Your task to perform on an android device: Empty the shopping cart on target.com. Search for "logitech g pro" on target.com, select the first entry, add it to the cart, then select checkout. Image 0: 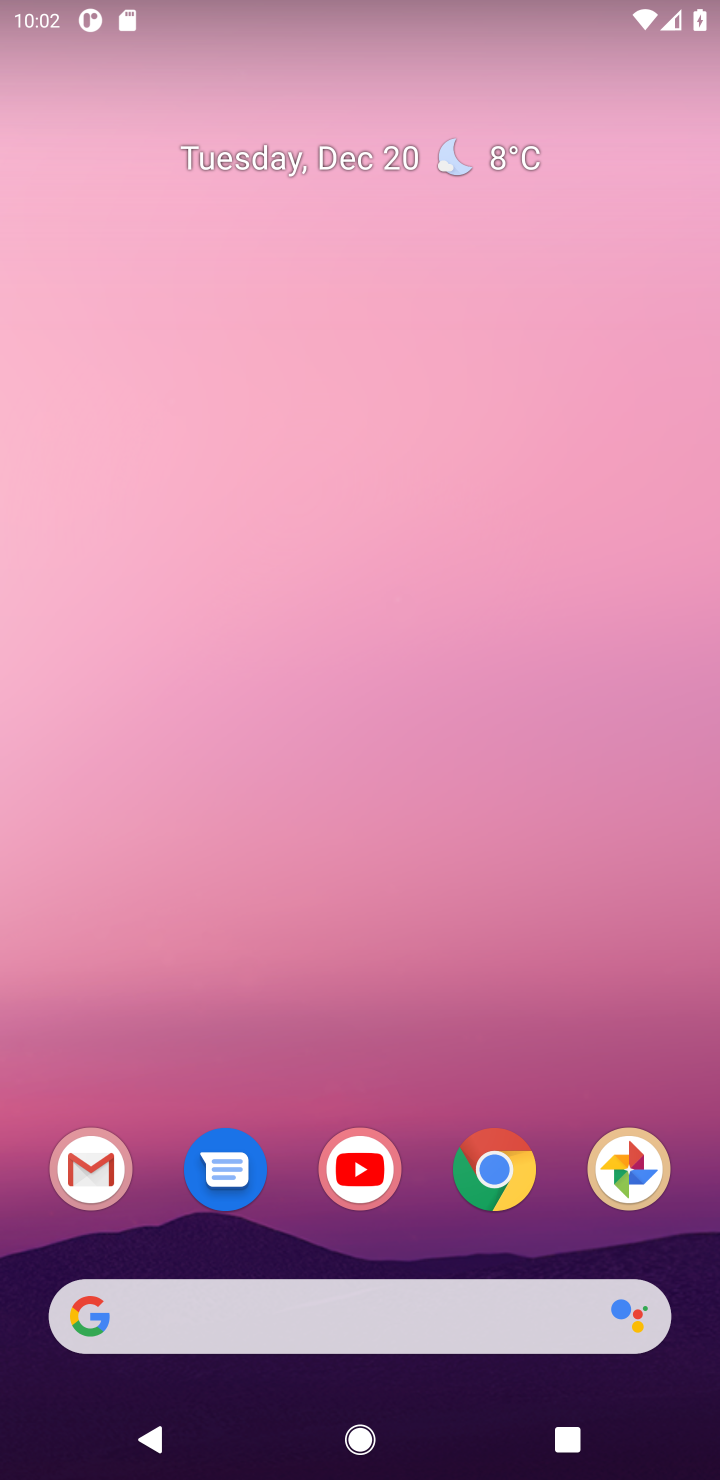
Step 0: click (431, 1339)
Your task to perform on an android device: Empty the shopping cart on target.com. Search for "logitech g pro" on target.com, select the first entry, add it to the cart, then select checkout. Image 1: 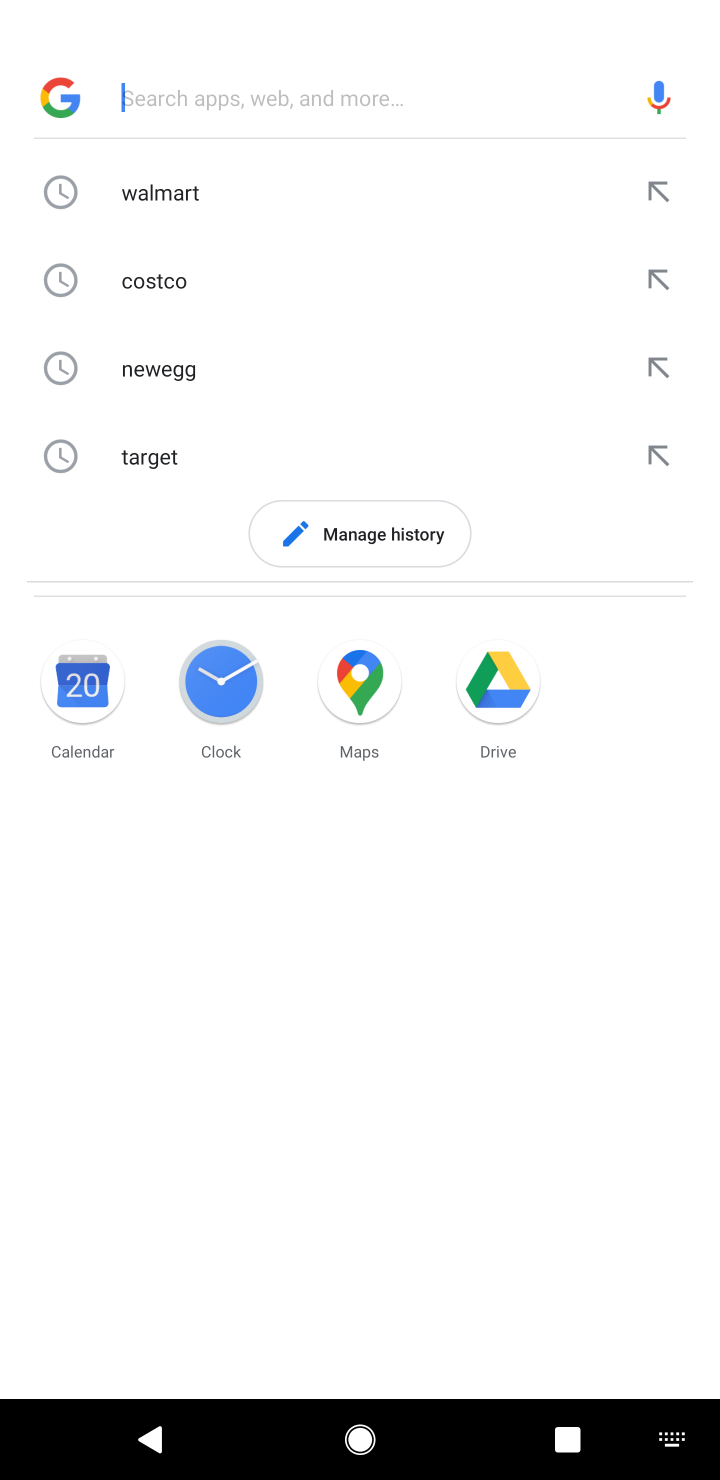
Step 1: click (212, 445)
Your task to perform on an android device: Empty the shopping cart on target.com. Search for "logitech g pro" on target.com, select the first entry, add it to the cart, then select checkout. Image 2: 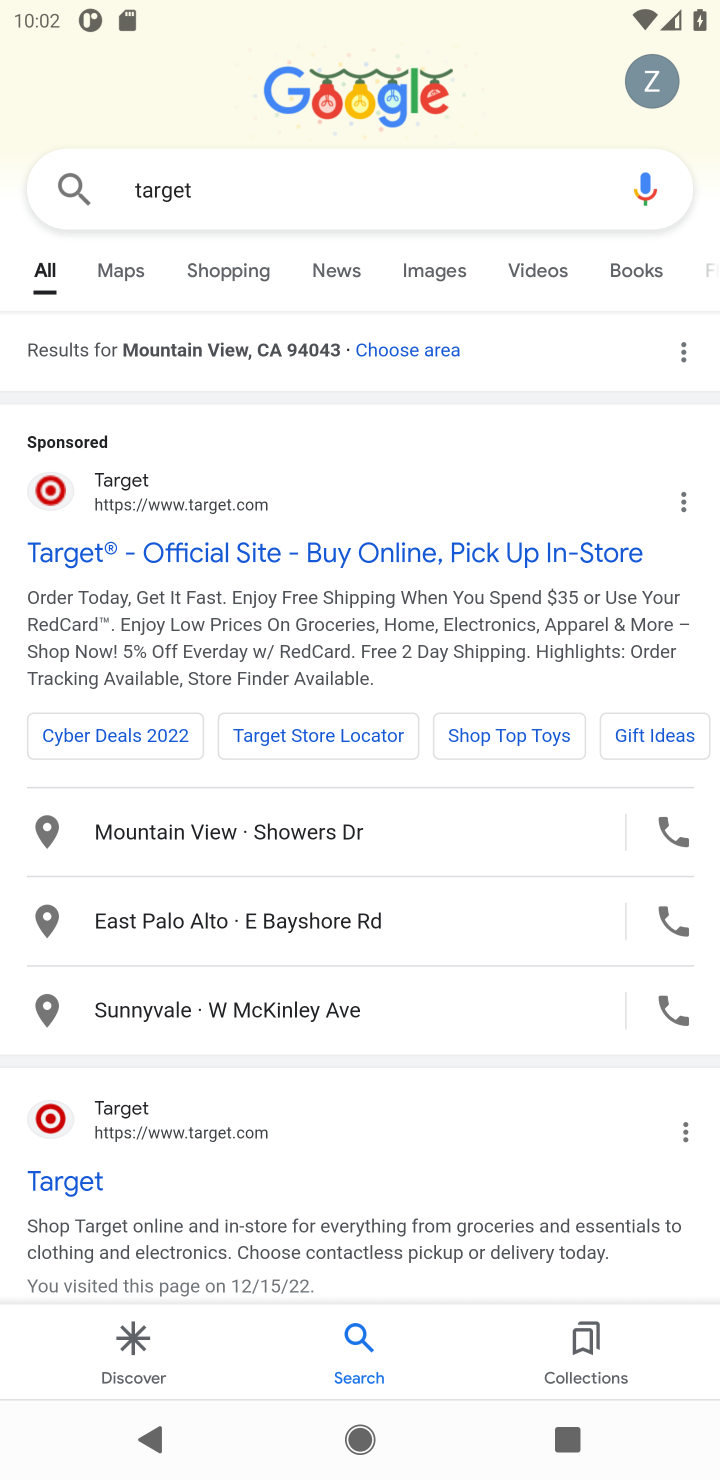
Step 2: click (167, 493)
Your task to perform on an android device: Empty the shopping cart on target.com. Search for "logitech g pro" on target.com, select the first entry, add it to the cart, then select checkout. Image 3: 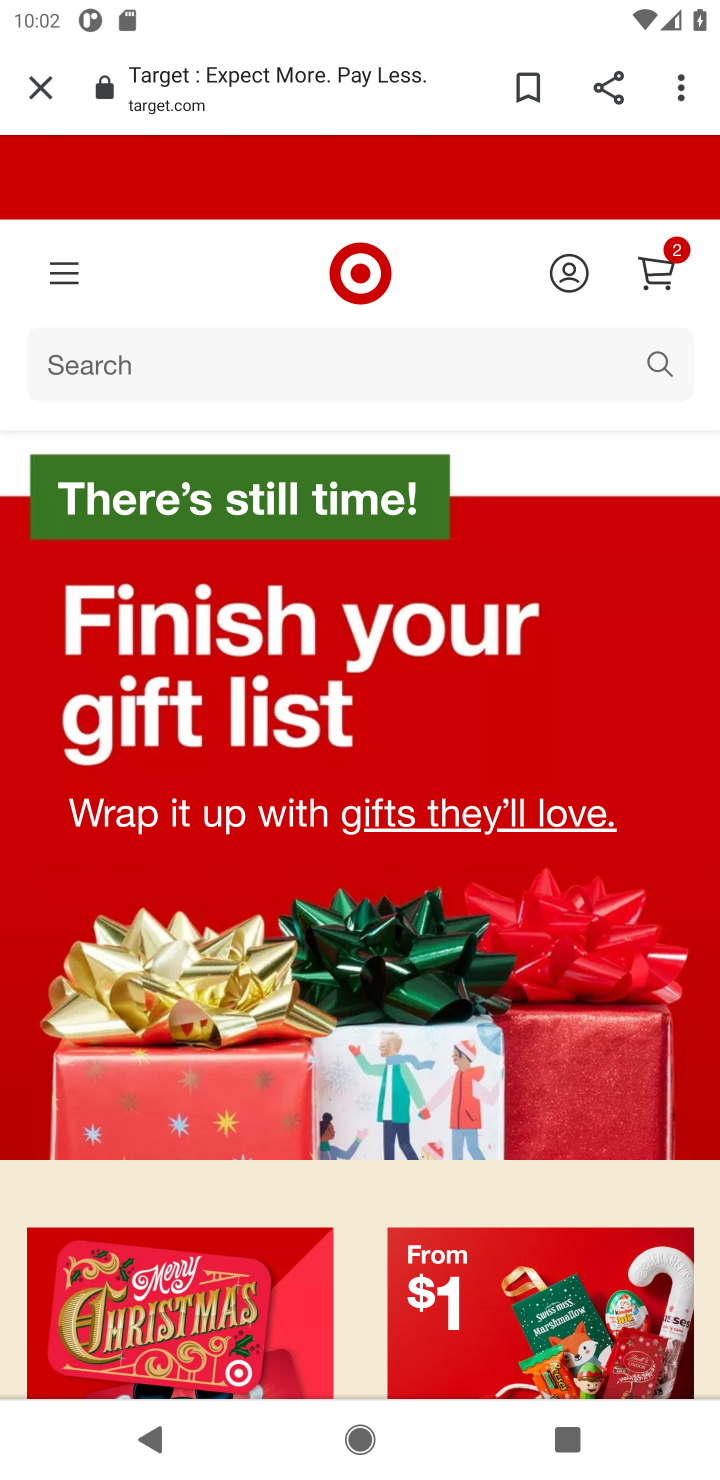
Step 3: click (279, 387)
Your task to perform on an android device: Empty the shopping cart on target.com. Search for "logitech g pro" on target.com, select the first entry, add it to the cart, then select checkout. Image 4: 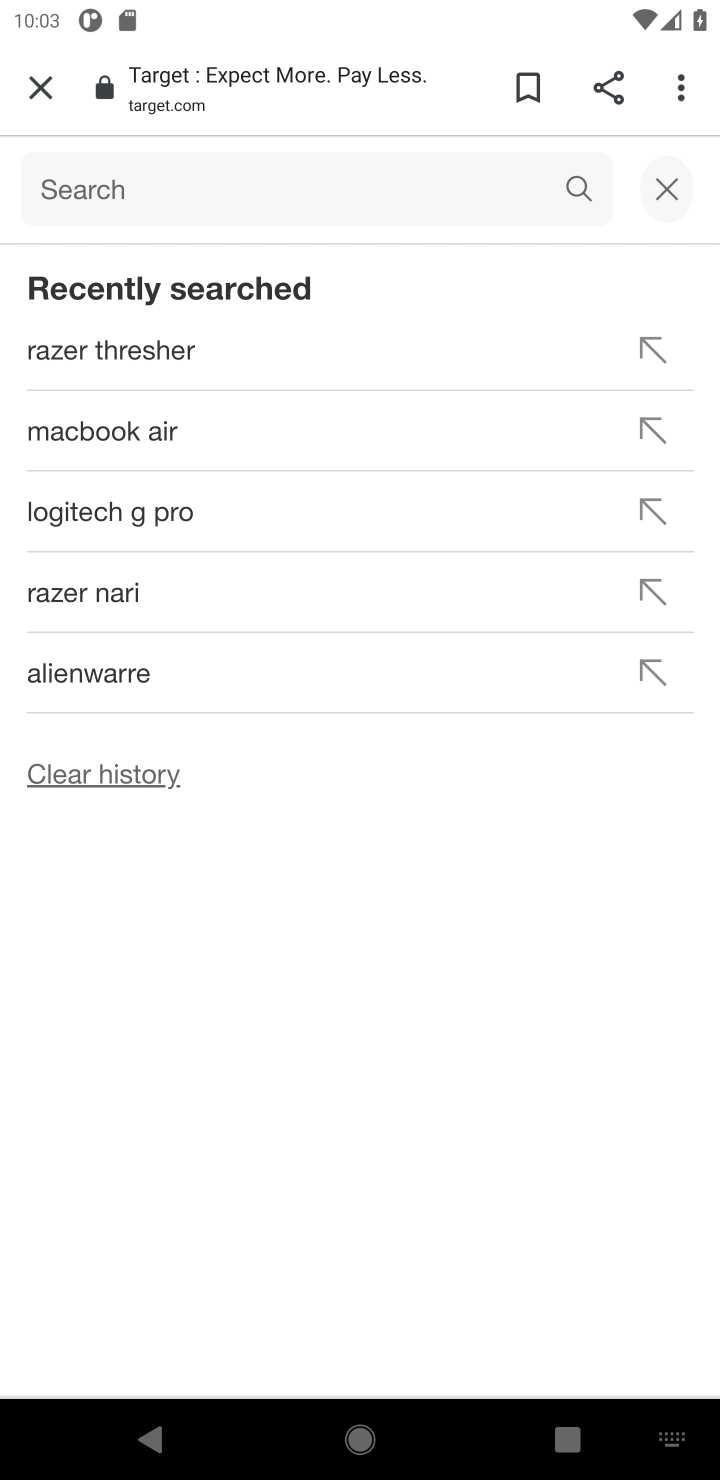
Step 4: type "logitech g pro"
Your task to perform on an android device: Empty the shopping cart on target.com. Search for "logitech g pro" on target.com, select the first entry, add it to the cart, then select checkout. Image 5: 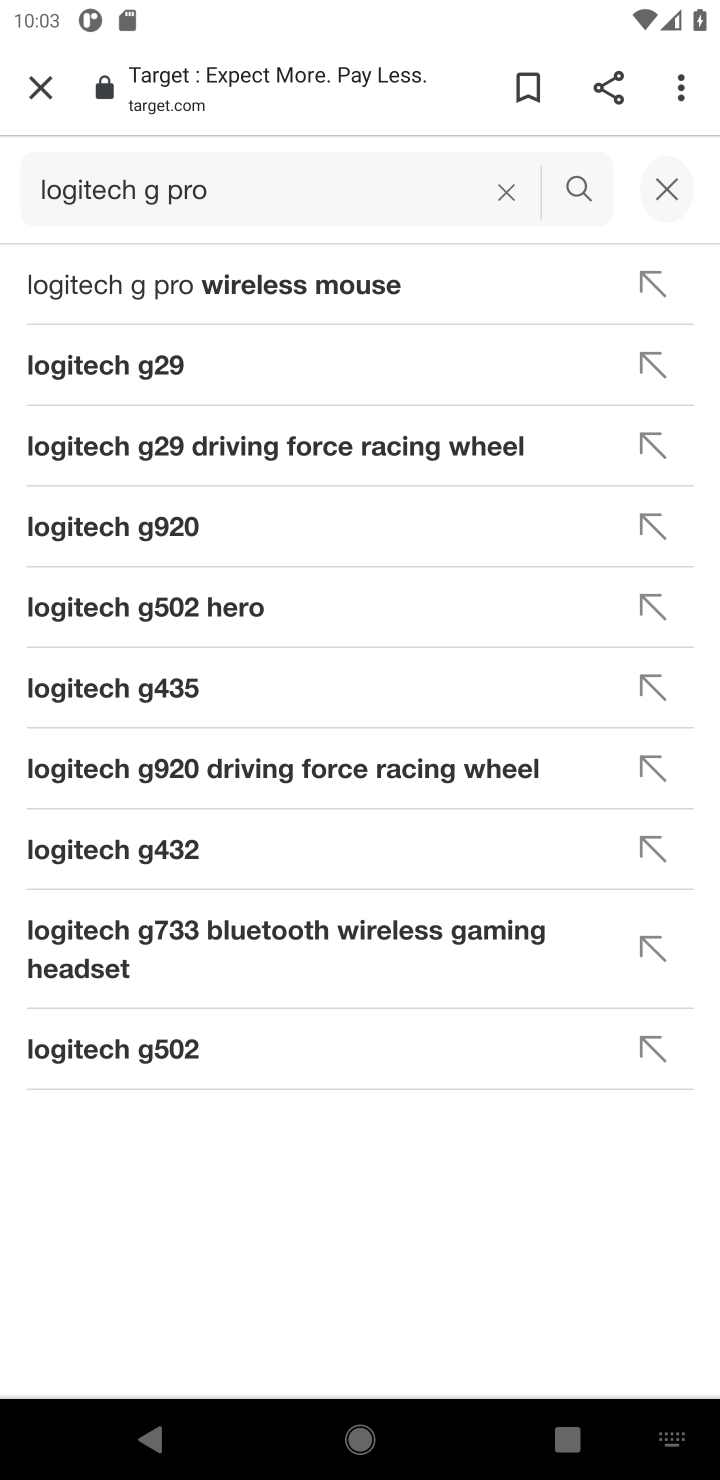
Step 5: click (565, 208)
Your task to perform on an android device: Empty the shopping cart on target.com. Search for "logitech g pro" on target.com, select the first entry, add it to the cart, then select checkout. Image 6: 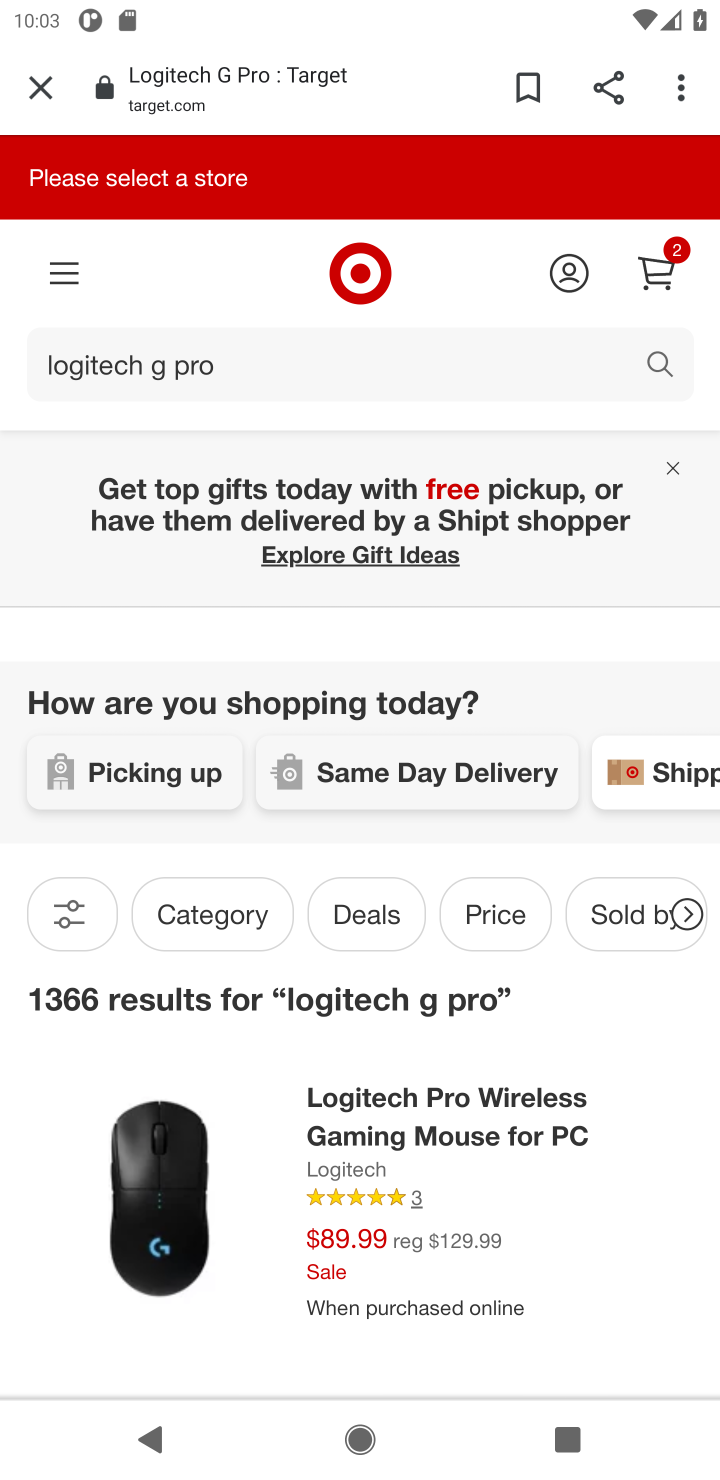
Step 6: click (429, 1139)
Your task to perform on an android device: Empty the shopping cart on target.com. Search for "logitech g pro" on target.com, select the first entry, add it to the cart, then select checkout. Image 7: 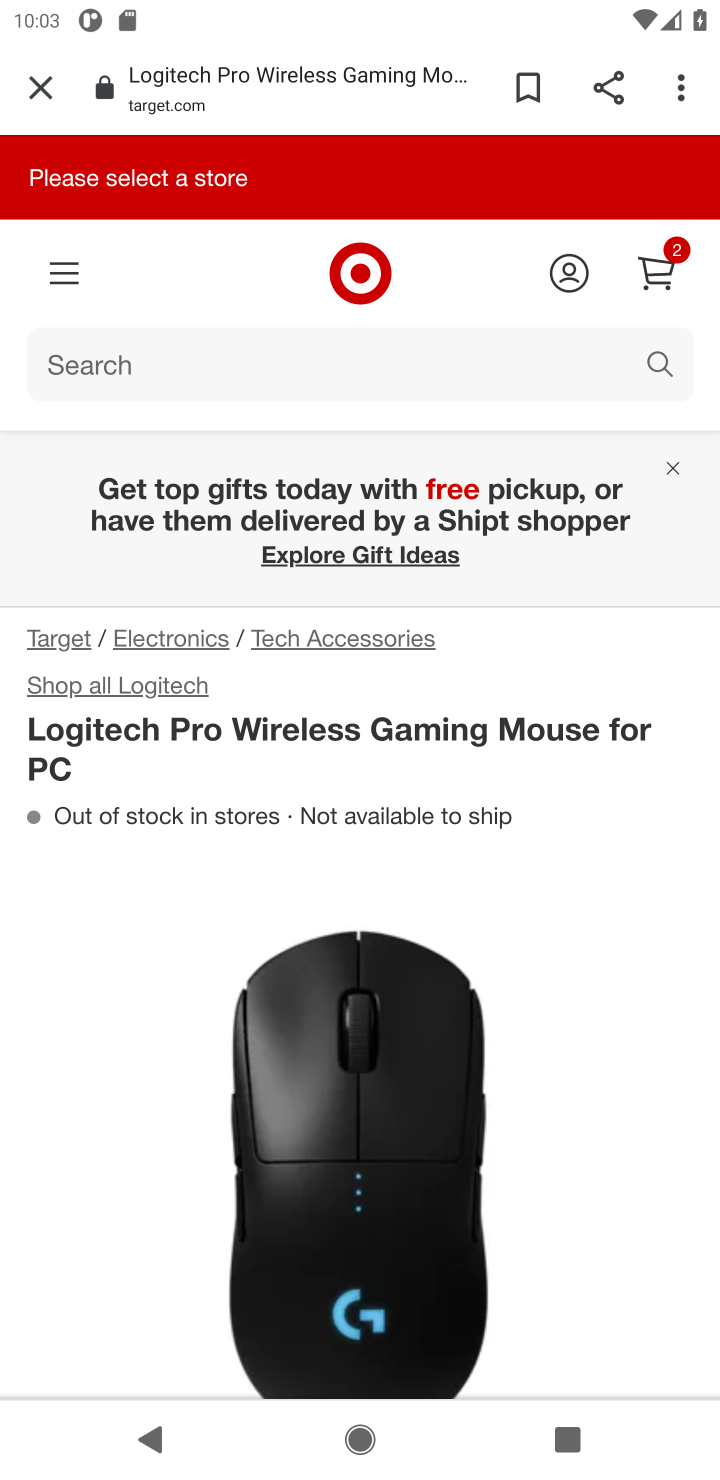
Step 7: drag from (429, 1139) to (370, 409)
Your task to perform on an android device: Empty the shopping cart on target.com. Search for "logitech g pro" on target.com, select the first entry, add it to the cart, then select checkout. Image 8: 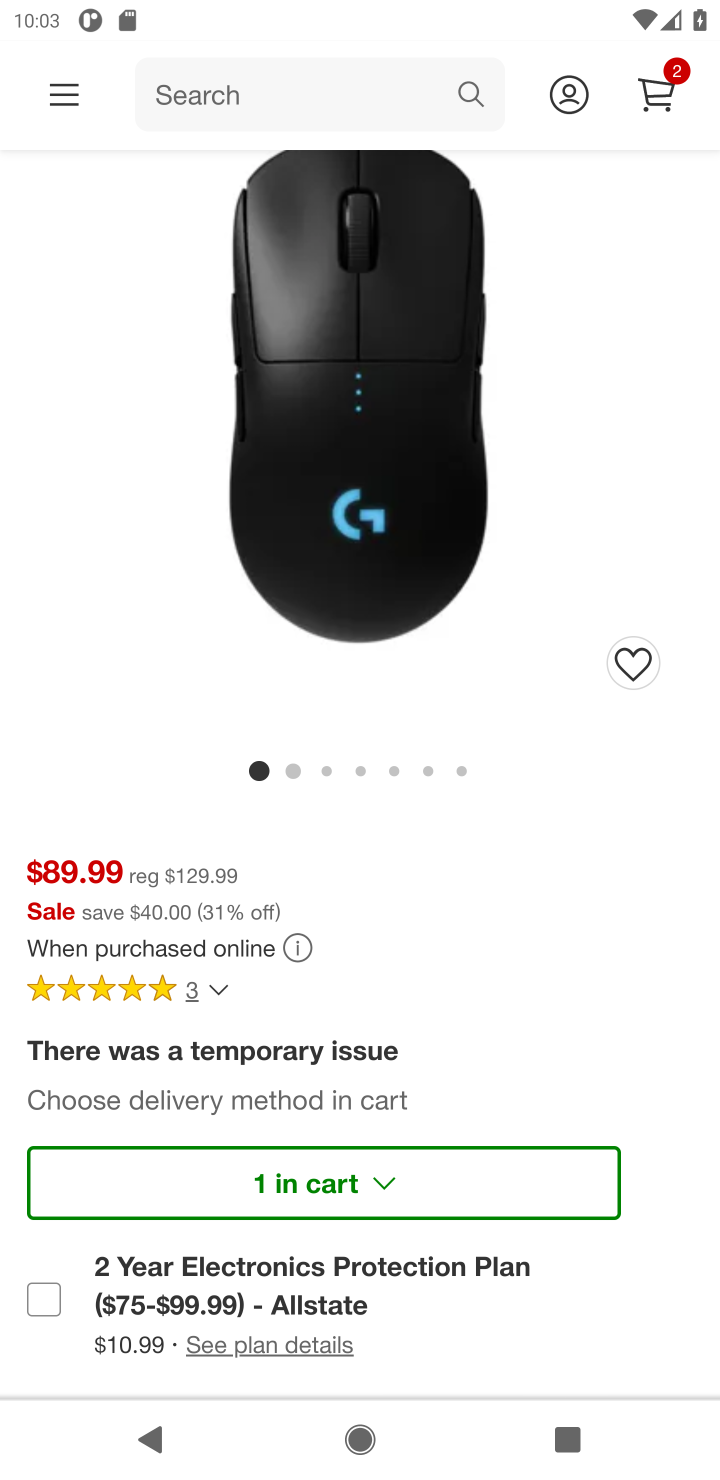
Step 8: drag from (537, 1113) to (439, 556)
Your task to perform on an android device: Empty the shopping cart on target.com. Search for "logitech g pro" on target.com, select the first entry, add it to the cart, then select checkout. Image 9: 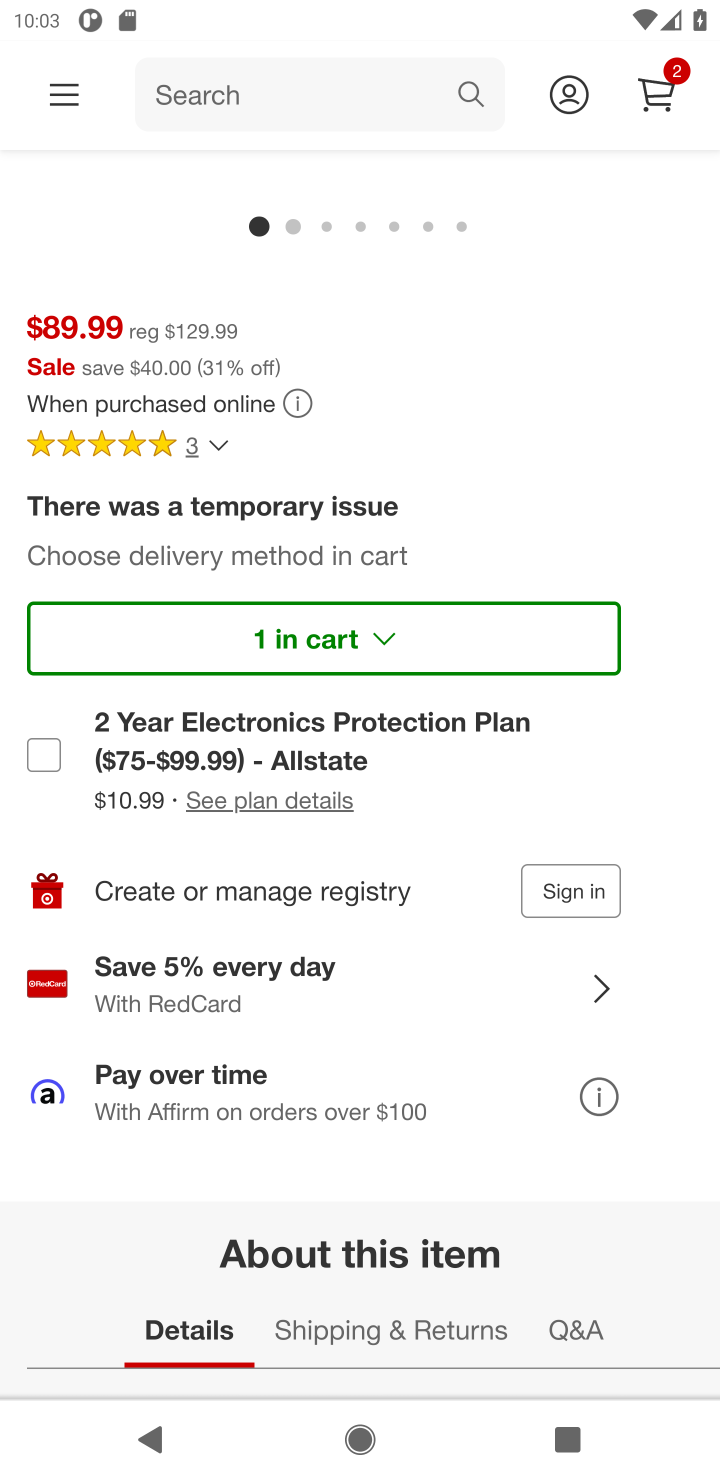
Step 9: drag from (497, 1153) to (405, 159)
Your task to perform on an android device: Empty the shopping cart on target.com. Search for "logitech g pro" on target.com, select the first entry, add it to the cart, then select checkout. Image 10: 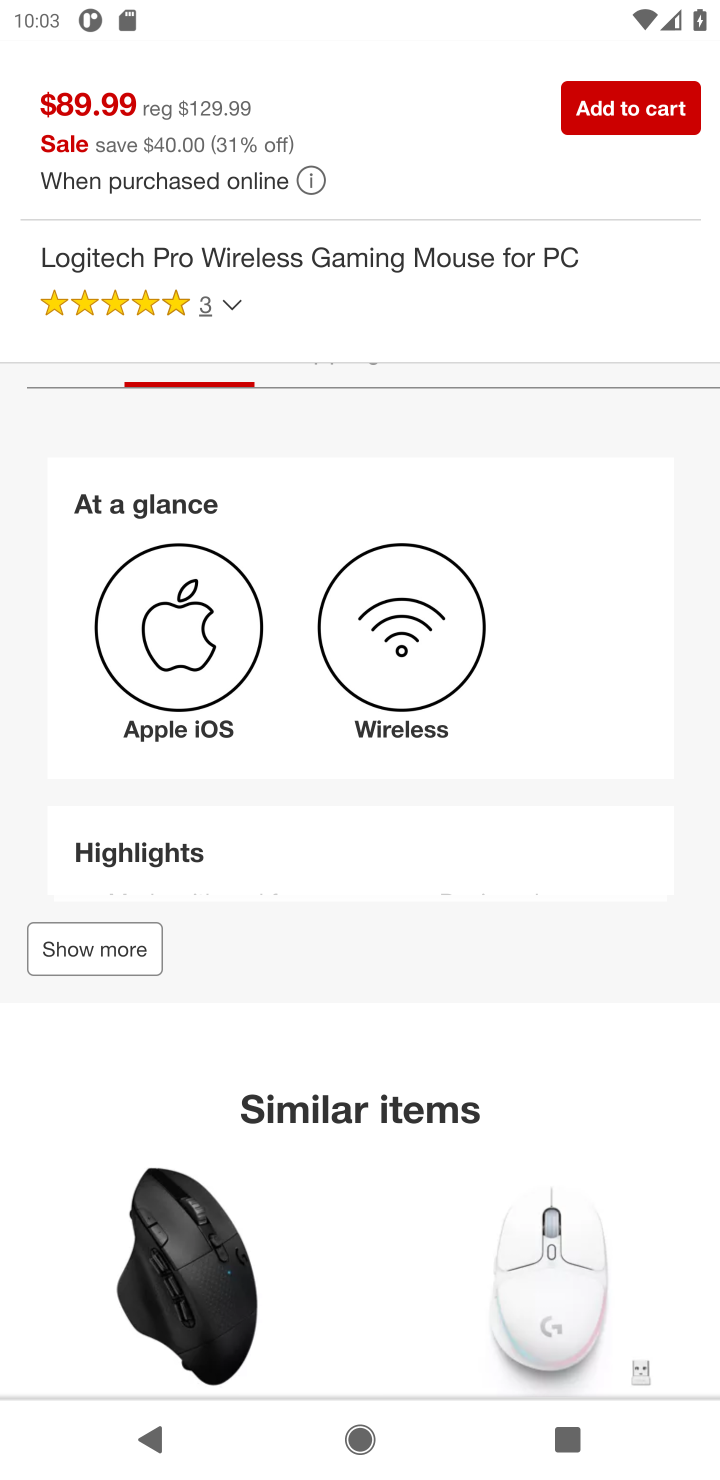
Step 10: click (591, 109)
Your task to perform on an android device: Empty the shopping cart on target.com. Search for "logitech g pro" on target.com, select the first entry, add it to the cart, then select checkout. Image 11: 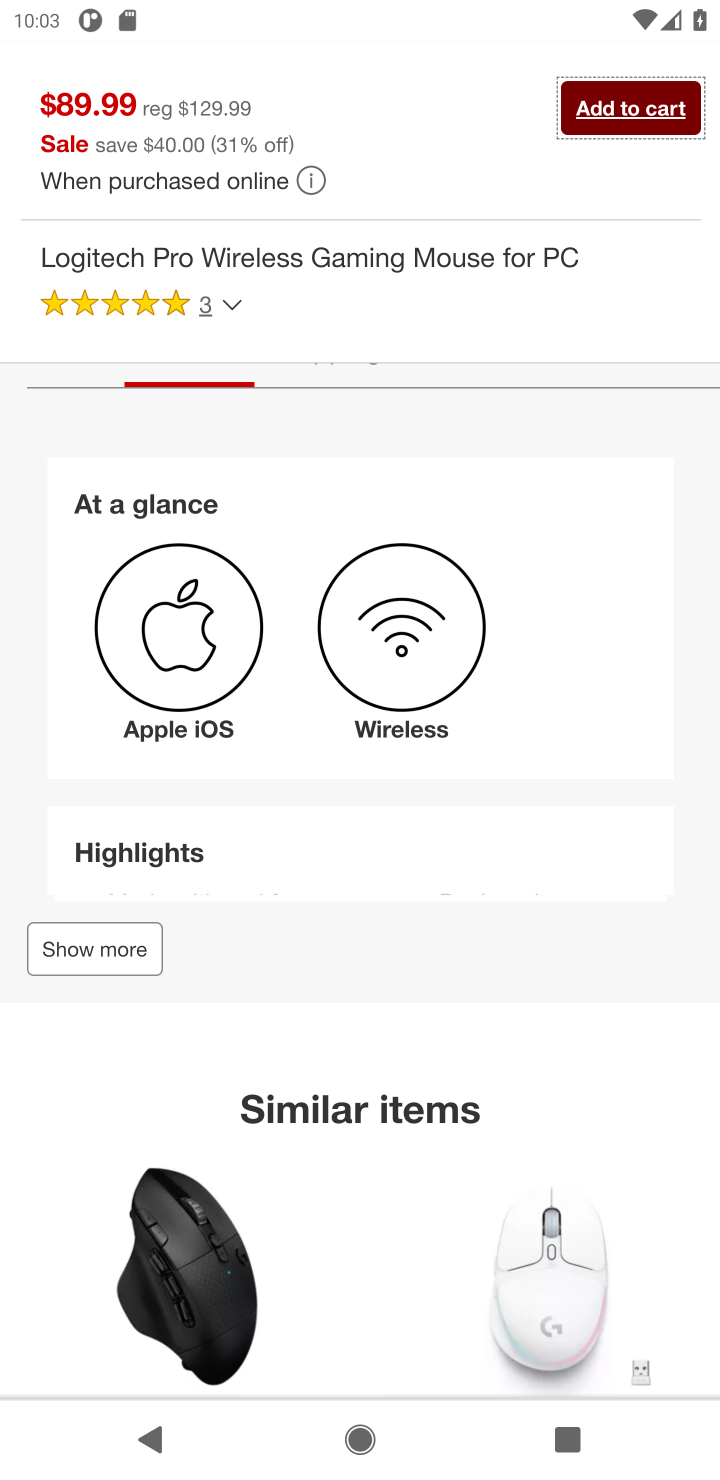
Step 11: task complete